Your task to perform on an android device: open a bookmark in the chrome app Image 0: 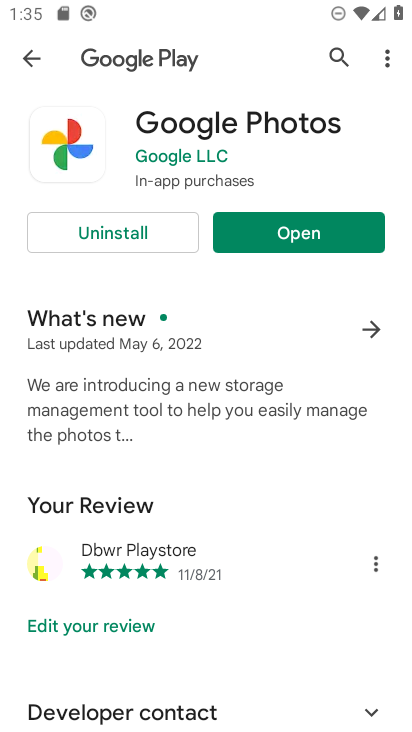
Step 0: press home button
Your task to perform on an android device: open a bookmark in the chrome app Image 1: 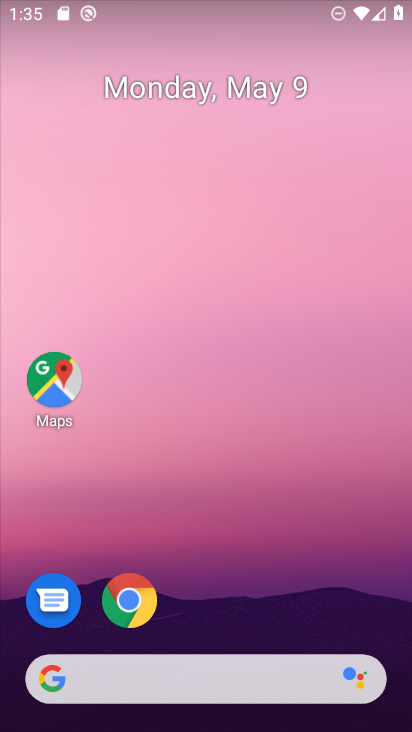
Step 1: drag from (196, 679) to (344, 176)
Your task to perform on an android device: open a bookmark in the chrome app Image 2: 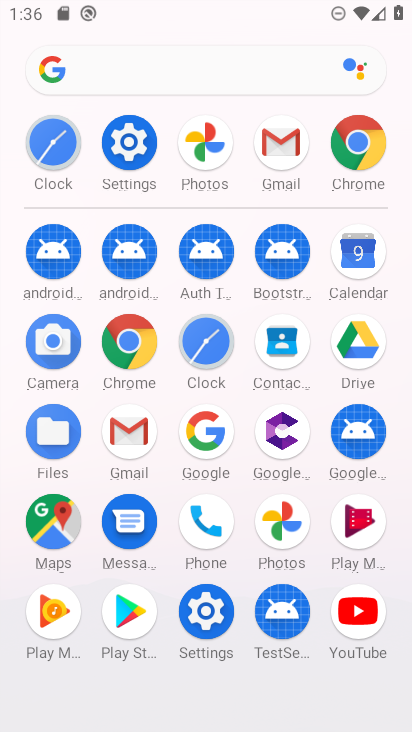
Step 2: click (362, 156)
Your task to perform on an android device: open a bookmark in the chrome app Image 3: 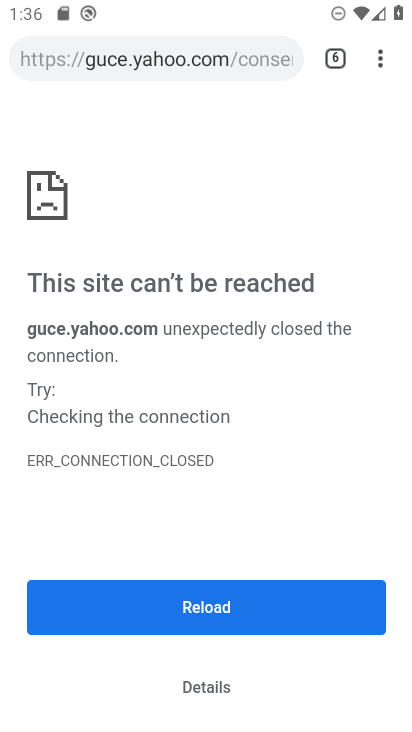
Step 3: drag from (383, 69) to (210, 221)
Your task to perform on an android device: open a bookmark in the chrome app Image 4: 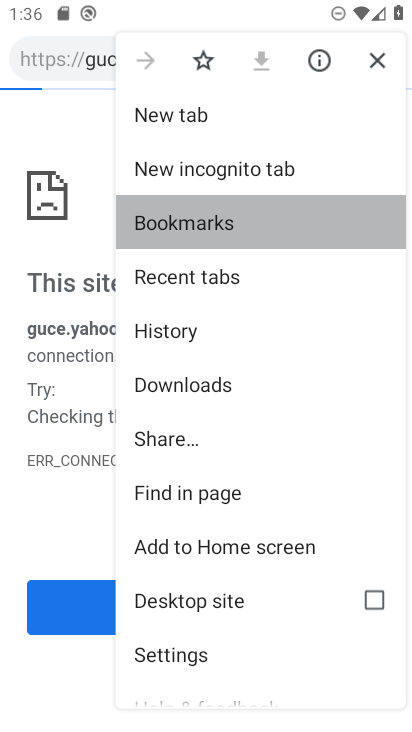
Step 4: click (210, 221)
Your task to perform on an android device: open a bookmark in the chrome app Image 5: 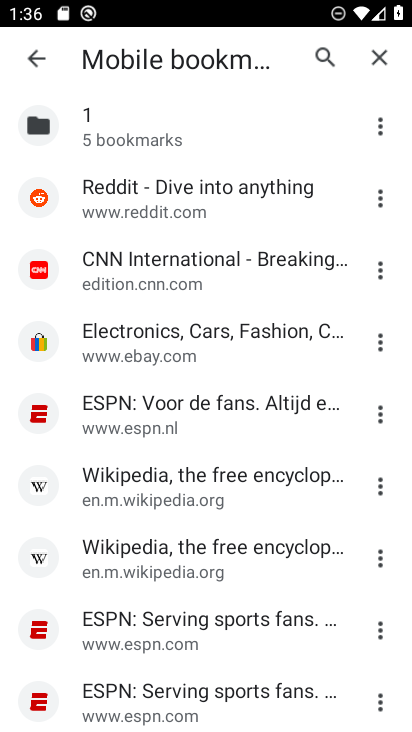
Step 5: task complete